Your task to perform on an android device: Open calendar and show me the fourth week of next month Image 0: 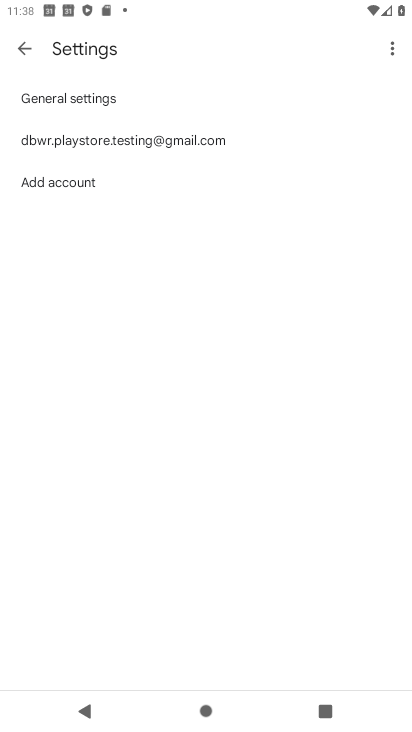
Step 0: press home button
Your task to perform on an android device: Open calendar and show me the fourth week of next month Image 1: 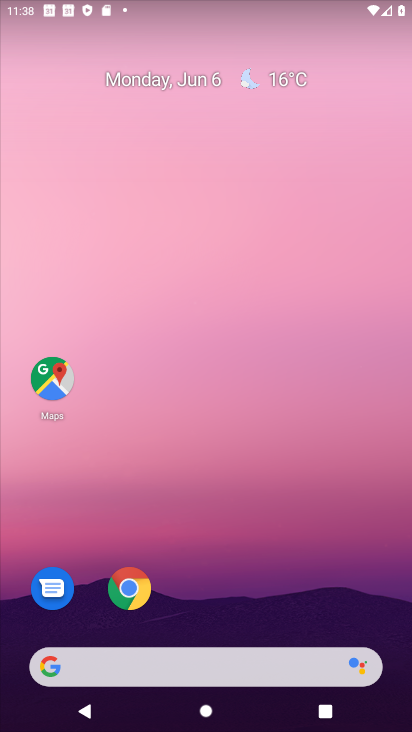
Step 1: drag from (241, 574) to (120, 147)
Your task to perform on an android device: Open calendar and show me the fourth week of next month Image 2: 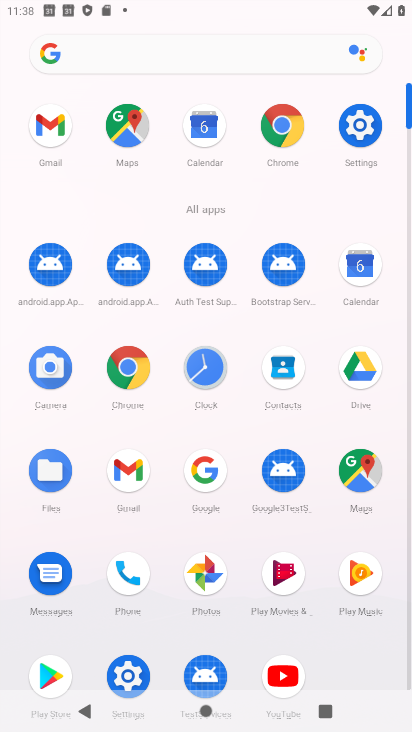
Step 2: click (204, 126)
Your task to perform on an android device: Open calendar and show me the fourth week of next month Image 3: 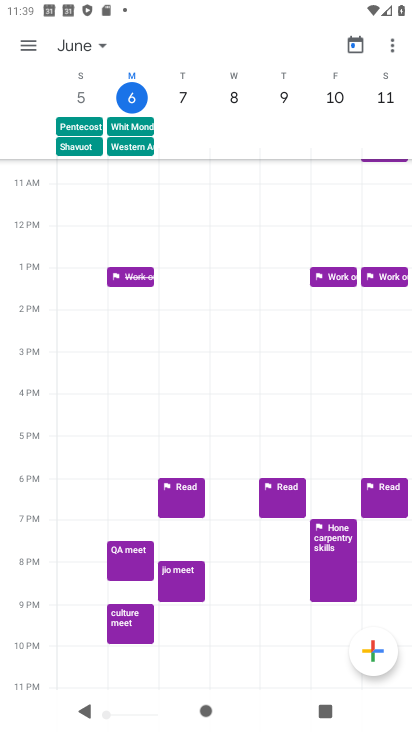
Step 3: click (356, 45)
Your task to perform on an android device: Open calendar and show me the fourth week of next month Image 4: 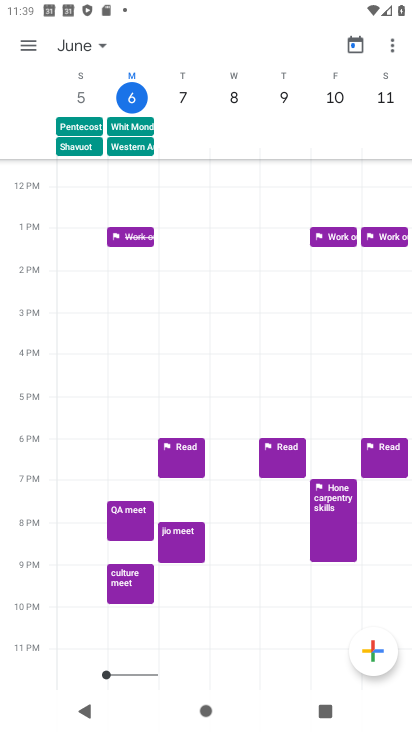
Step 4: click (104, 45)
Your task to perform on an android device: Open calendar and show me the fourth week of next month Image 5: 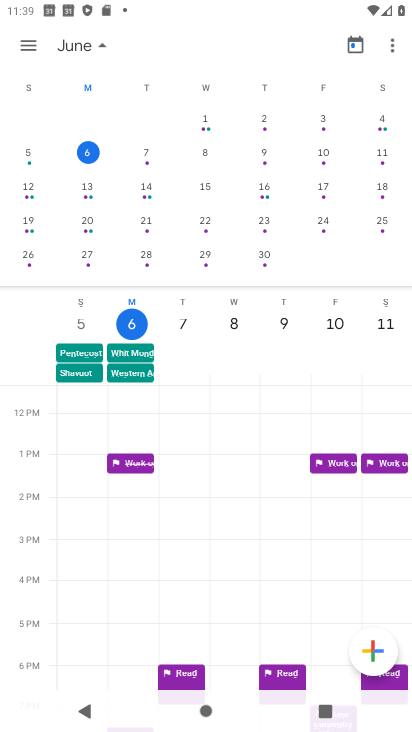
Step 5: drag from (356, 200) to (8, 226)
Your task to perform on an android device: Open calendar and show me the fourth week of next month Image 6: 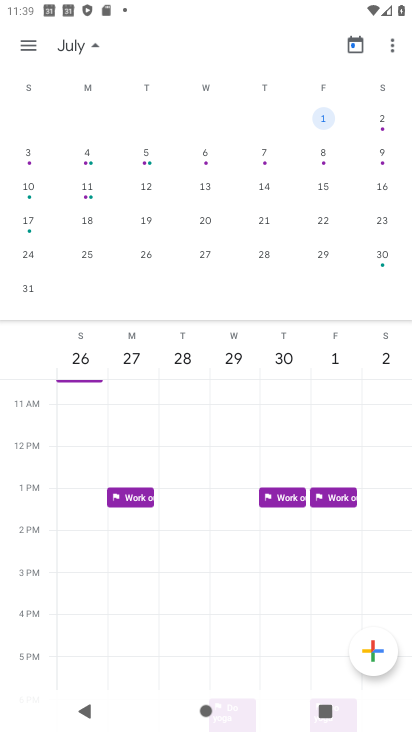
Step 6: click (92, 251)
Your task to perform on an android device: Open calendar and show me the fourth week of next month Image 7: 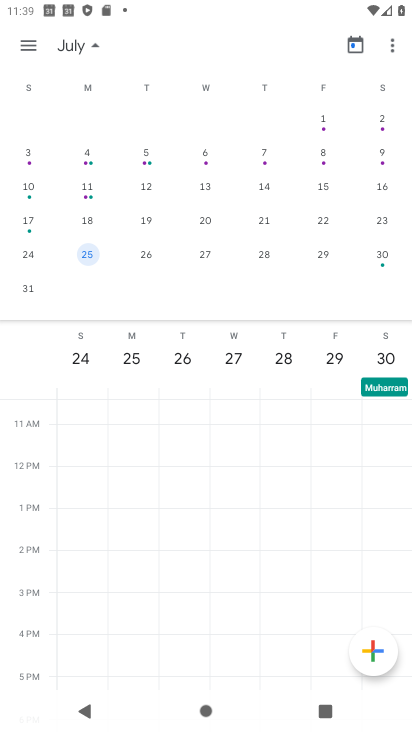
Step 7: click (28, 50)
Your task to perform on an android device: Open calendar and show me the fourth week of next month Image 8: 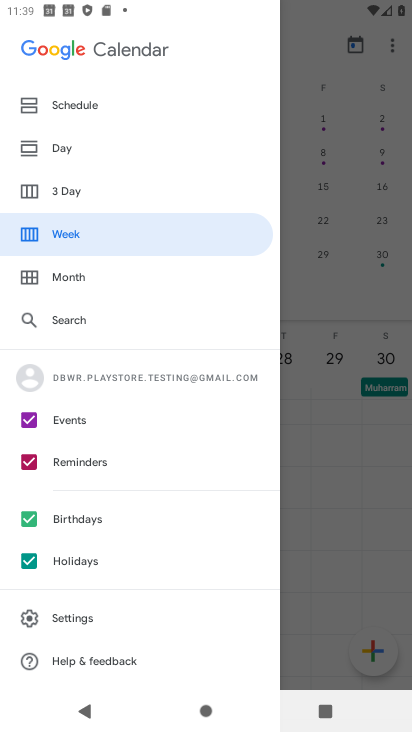
Step 8: click (89, 227)
Your task to perform on an android device: Open calendar and show me the fourth week of next month Image 9: 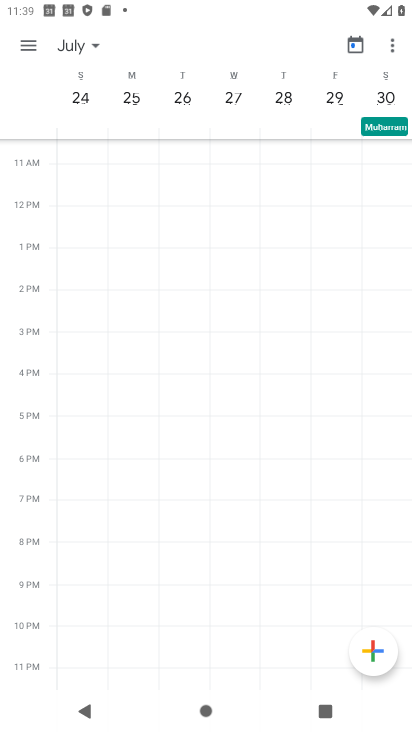
Step 9: task complete